Your task to perform on an android device: Go to ESPN.com Image 0: 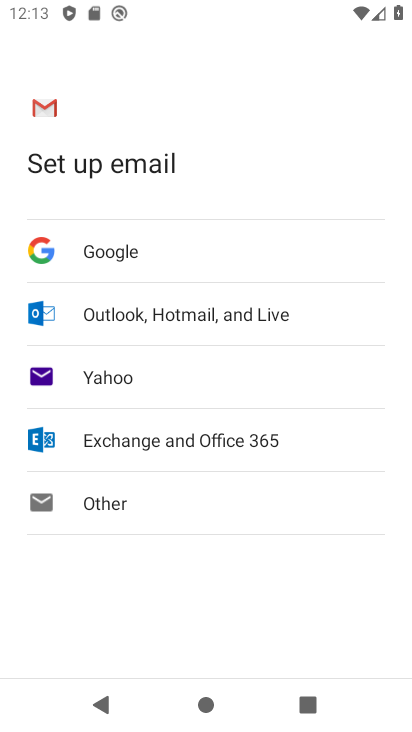
Step 0: press home button
Your task to perform on an android device: Go to ESPN.com Image 1: 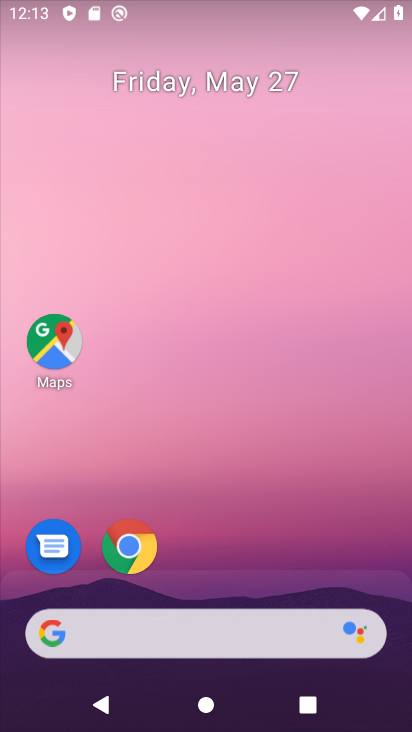
Step 1: drag from (345, 592) to (319, 141)
Your task to perform on an android device: Go to ESPN.com Image 2: 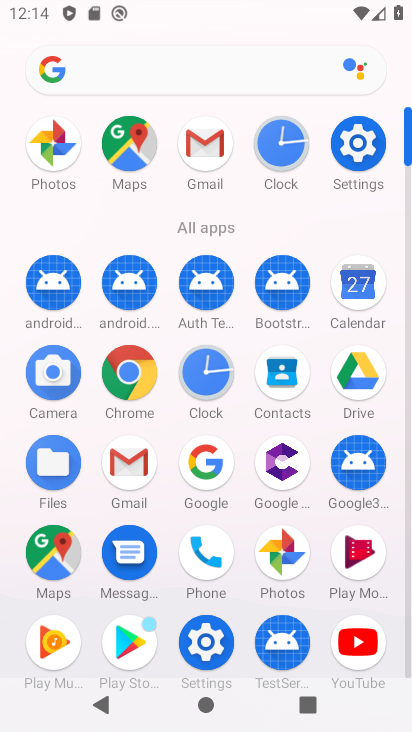
Step 2: click (137, 384)
Your task to perform on an android device: Go to ESPN.com Image 3: 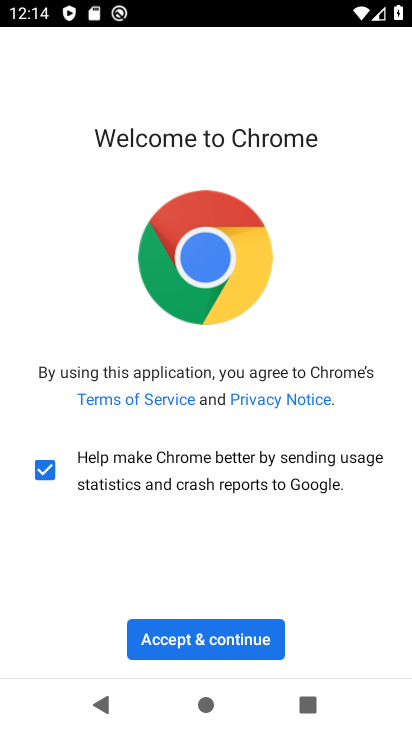
Step 3: click (202, 645)
Your task to perform on an android device: Go to ESPN.com Image 4: 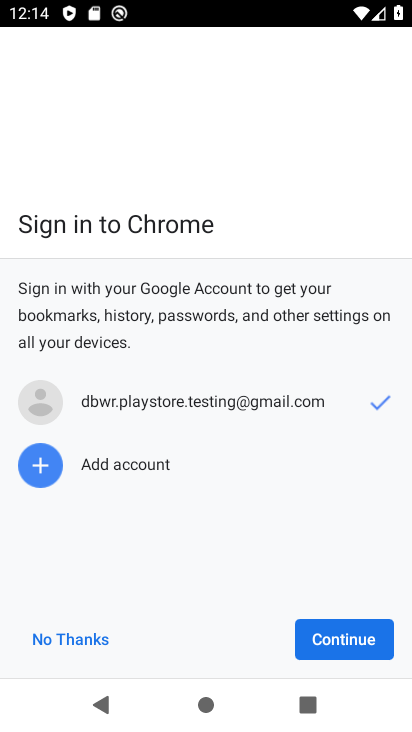
Step 4: click (337, 635)
Your task to perform on an android device: Go to ESPN.com Image 5: 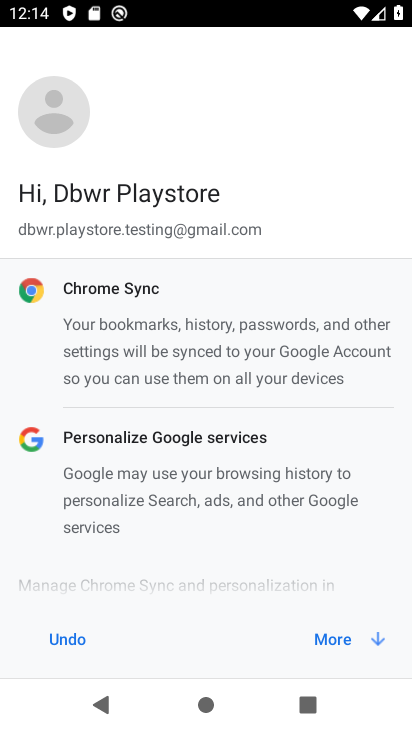
Step 5: click (338, 636)
Your task to perform on an android device: Go to ESPN.com Image 6: 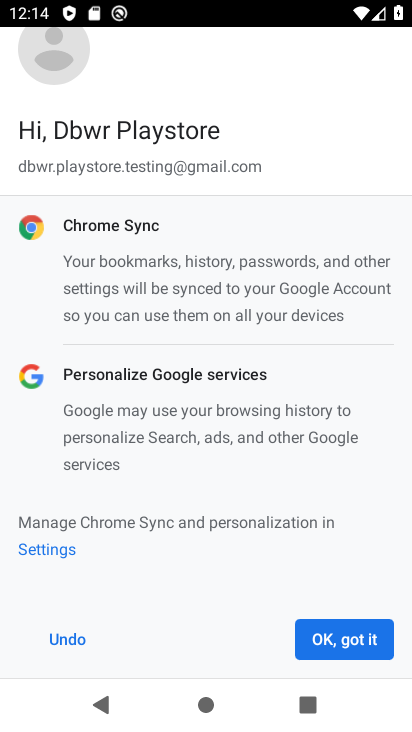
Step 6: click (339, 636)
Your task to perform on an android device: Go to ESPN.com Image 7: 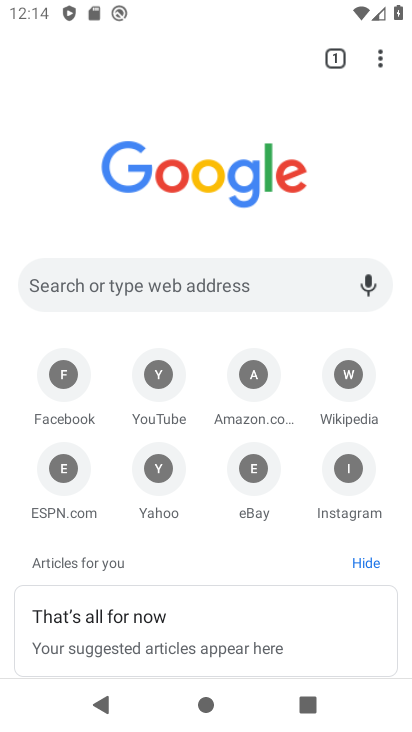
Step 7: click (255, 299)
Your task to perform on an android device: Go to ESPN.com Image 8: 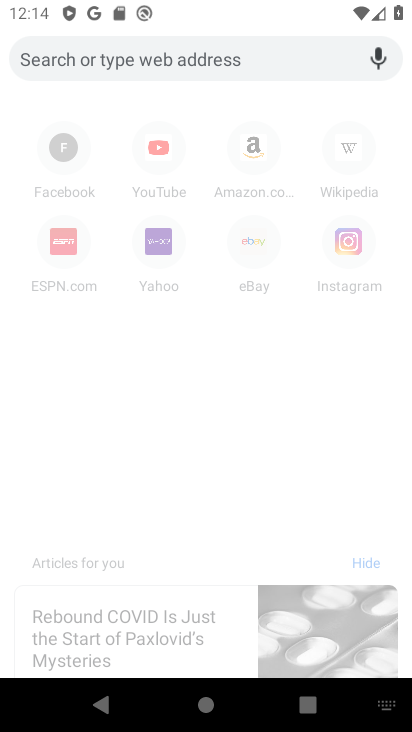
Step 8: type "espn.com"
Your task to perform on an android device: Go to ESPN.com Image 9: 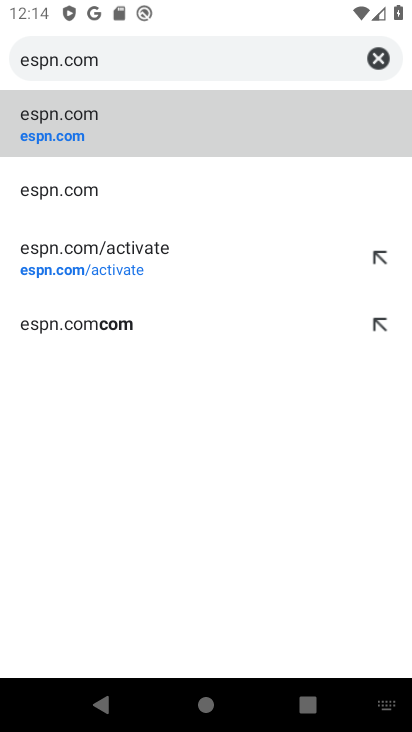
Step 9: click (189, 123)
Your task to perform on an android device: Go to ESPN.com Image 10: 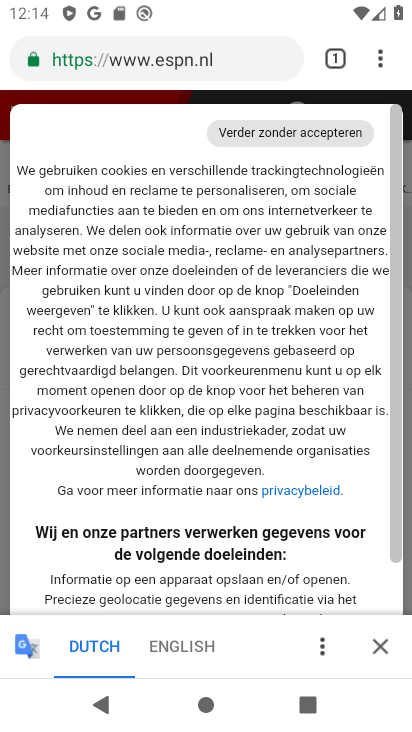
Step 10: task complete